Your task to perform on an android device: find photos in the google photos app Image 0: 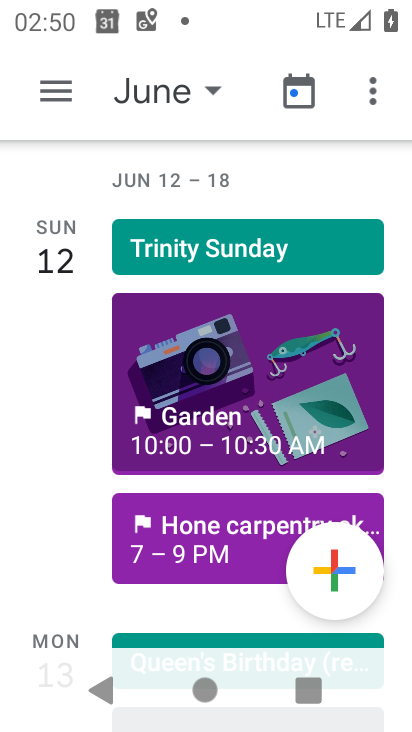
Step 0: press home button
Your task to perform on an android device: find photos in the google photos app Image 1: 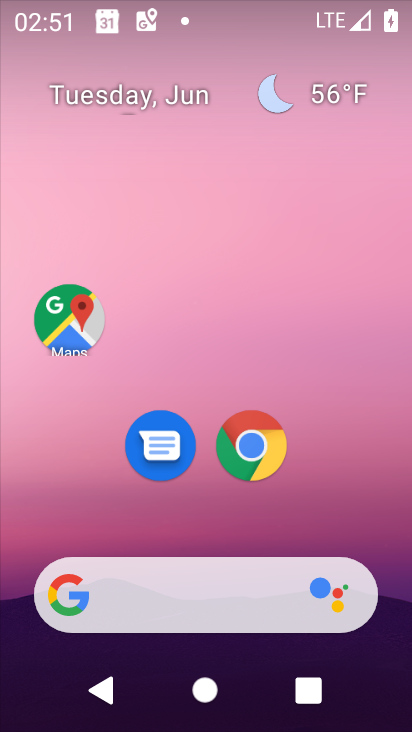
Step 1: drag from (273, 668) to (319, 180)
Your task to perform on an android device: find photos in the google photos app Image 2: 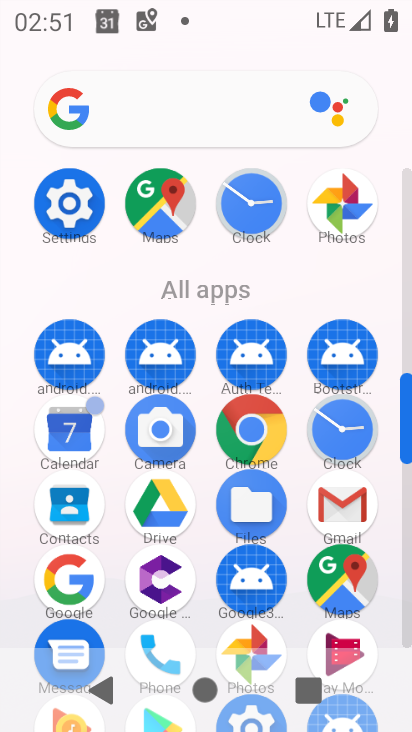
Step 2: click (334, 208)
Your task to perform on an android device: find photos in the google photos app Image 3: 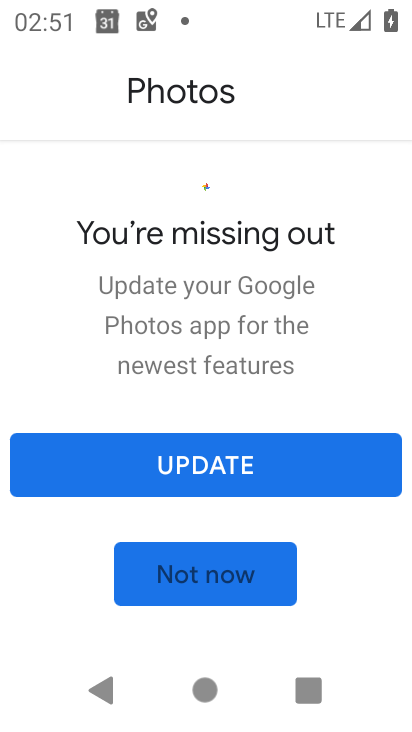
Step 3: click (255, 467)
Your task to perform on an android device: find photos in the google photos app Image 4: 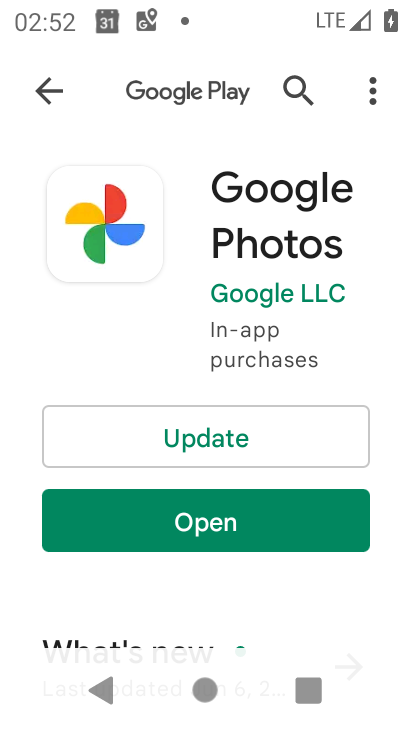
Step 4: click (271, 451)
Your task to perform on an android device: find photos in the google photos app Image 5: 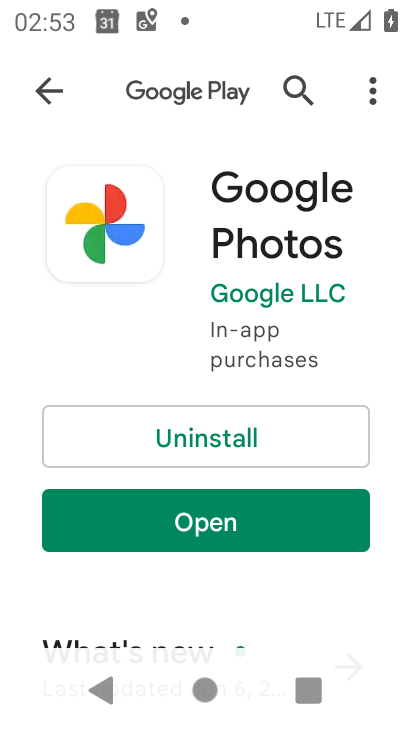
Step 5: click (178, 529)
Your task to perform on an android device: find photos in the google photos app Image 6: 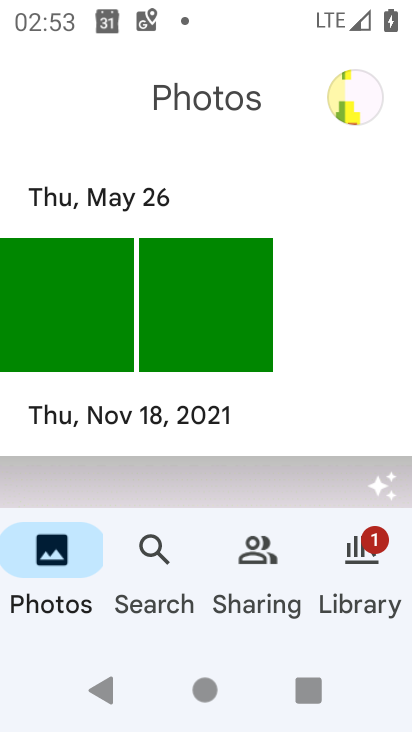
Step 6: task complete